Your task to perform on an android device: turn on sleep mode Image 0: 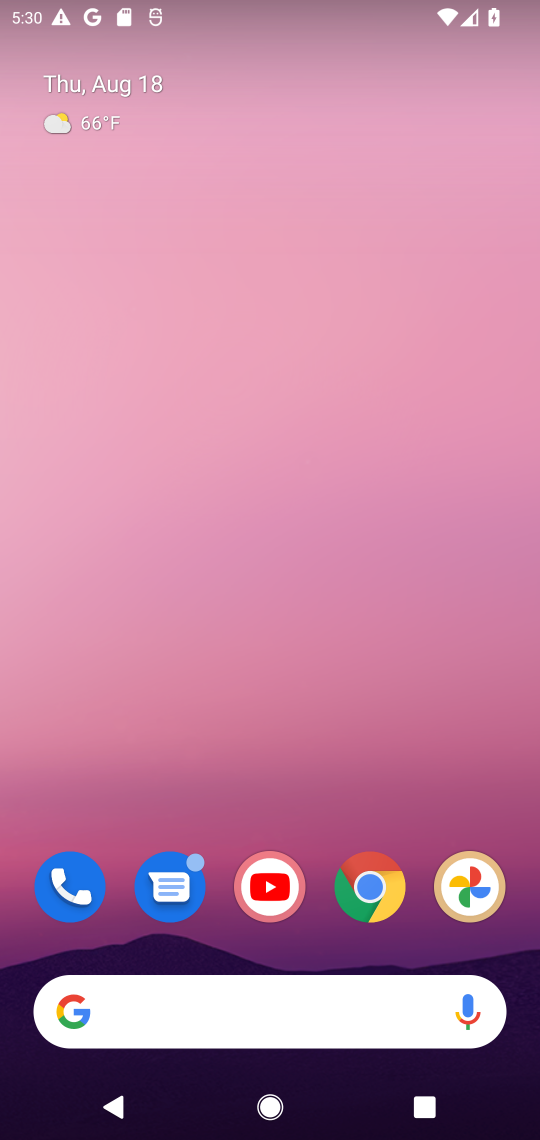
Step 0: drag from (283, 742) to (406, 112)
Your task to perform on an android device: turn on sleep mode Image 1: 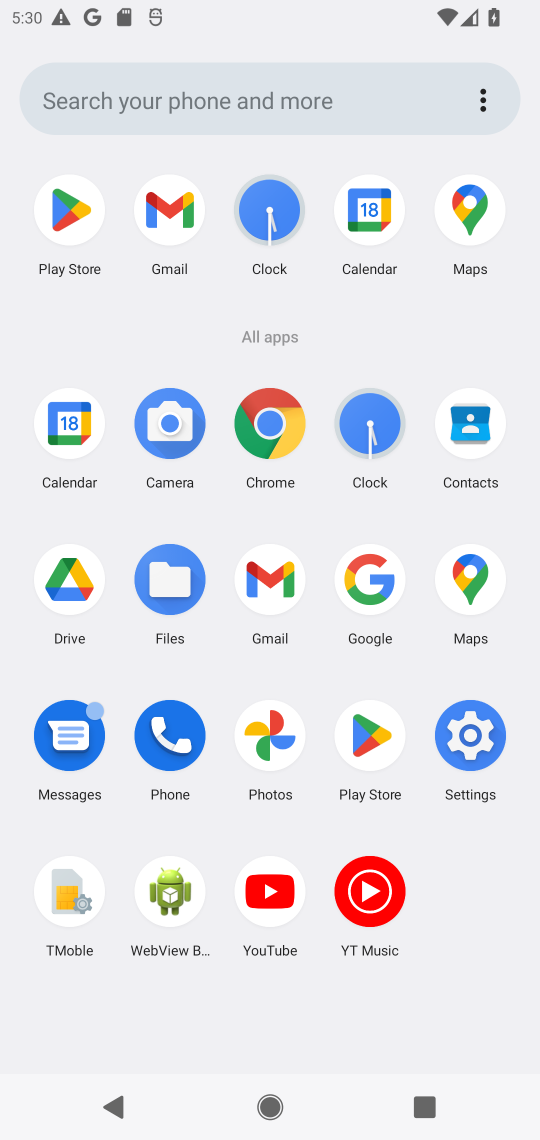
Step 1: task complete